Your task to perform on an android device: open app "DoorDash - Food Delivery" (install if not already installed) and enter user name: "Richard@outlook.com" and password: "informally" Image 0: 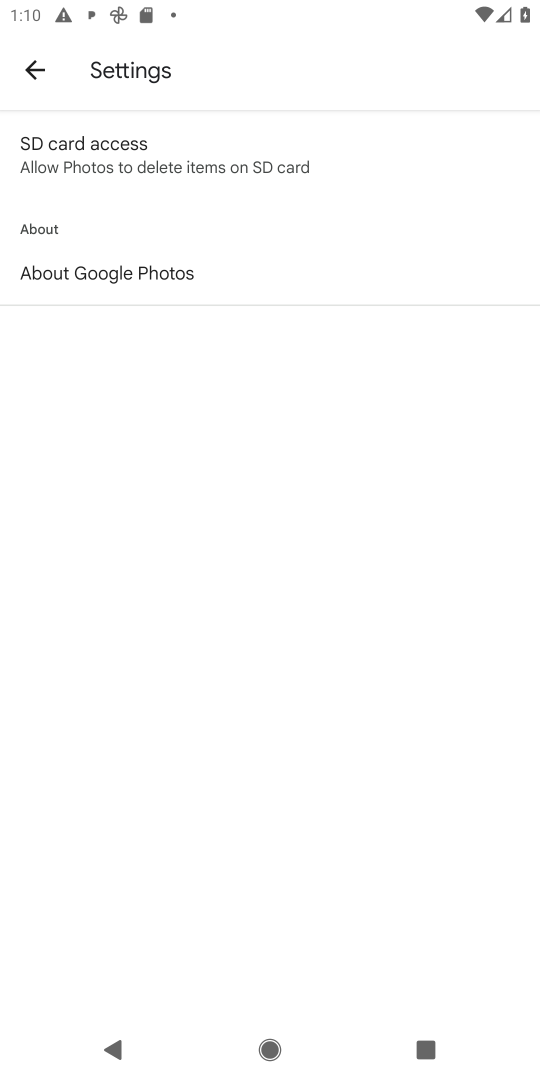
Step 0: press home button
Your task to perform on an android device: open app "DoorDash - Food Delivery" (install if not already installed) and enter user name: "Richard@outlook.com" and password: "informally" Image 1: 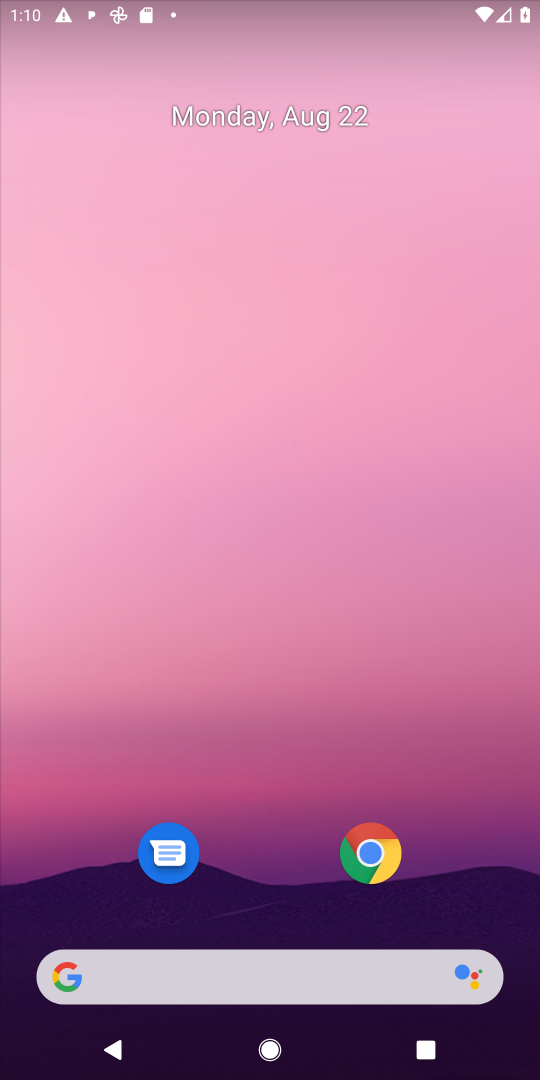
Step 1: drag from (254, 881) to (288, 39)
Your task to perform on an android device: open app "DoorDash - Food Delivery" (install if not already installed) and enter user name: "Richard@outlook.com" and password: "informally" Image 2: 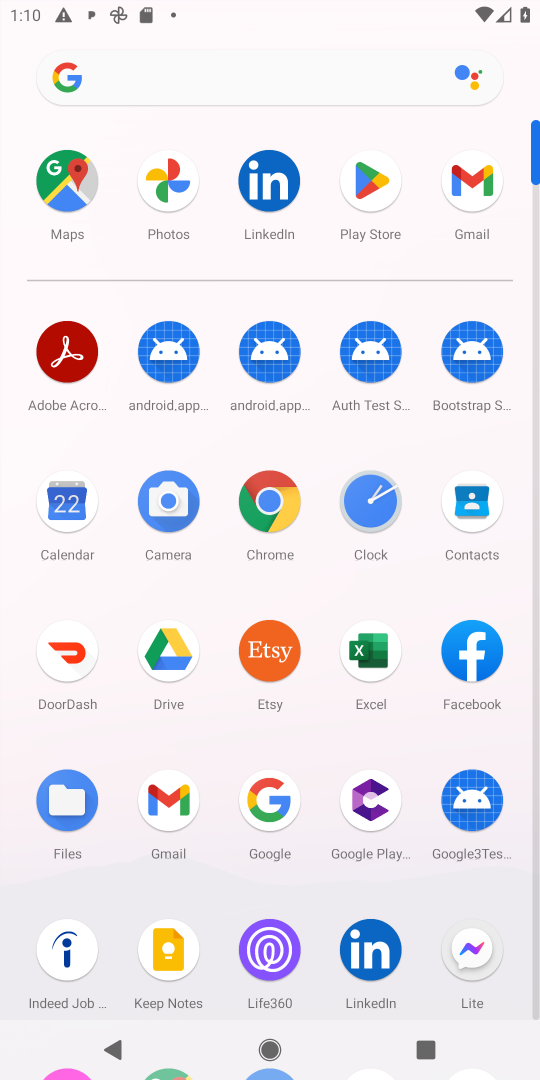
Step 2: click (375, 168)
Your task to perform on an android device: open app "DoorDash - Food Delivery" (install if not already installed) and enter user name: "Richard@outlook.com" and password: "informally" Image 3: 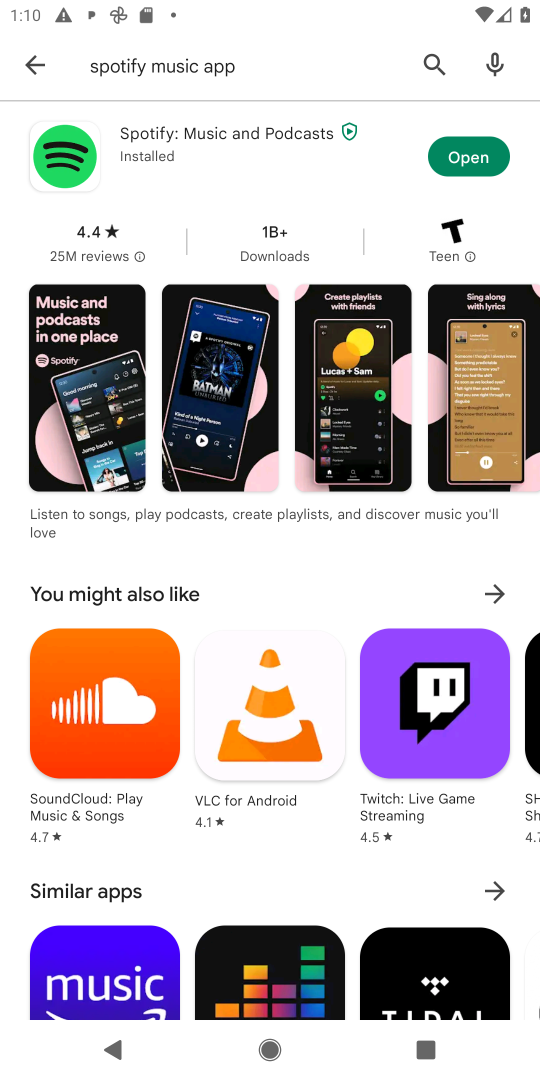
Step 3: click (20, 67)
Your task to perform on an android device: open app "DoorDash - Food Delivery" (install if not already installed) and enter user name: "Richard@outlook.com" and password: "informally" Image 4: 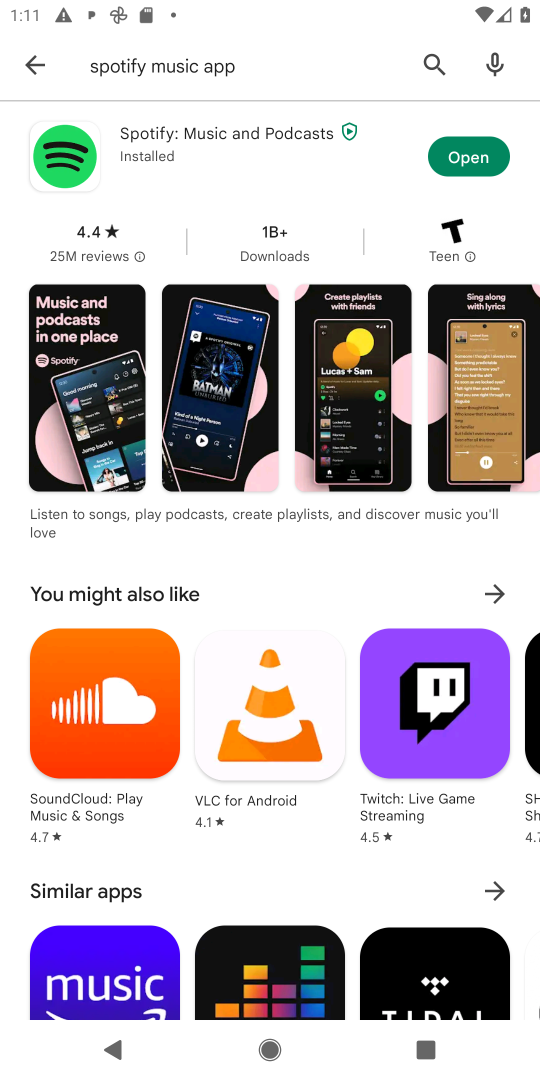
Step 4: click (20, 69)
Your task to perform on an android device: open app "DoorDash - Food Delivery" (install if not already installed) and enter user name: "Richard@outlook.com" and password: "informally" Image 5: 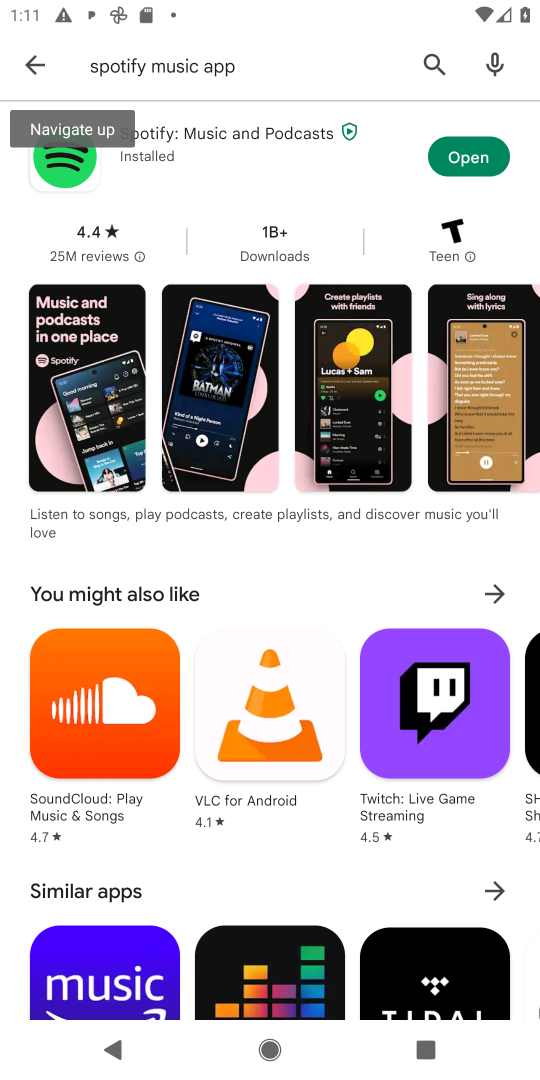
Step 5: click (20, 69)
Your task to perform on an android device: open app "DoorDash - Food Delivery" (install if not already installed) and enter user name: "Richard@outlook.com" and password: "informally" Image 6: 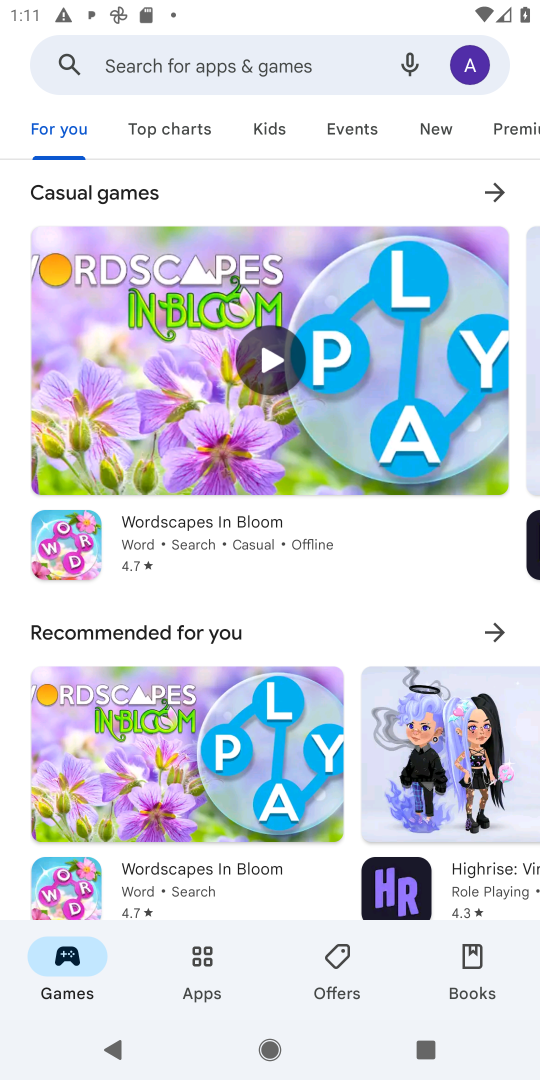
Step 6: click (234, 45)
Your task to perform on an android device: open app "DoorDash - Food Delivery" (install if not already installed) and enter user name: "Richard@outlook.com" and password: "informally" Image 7: 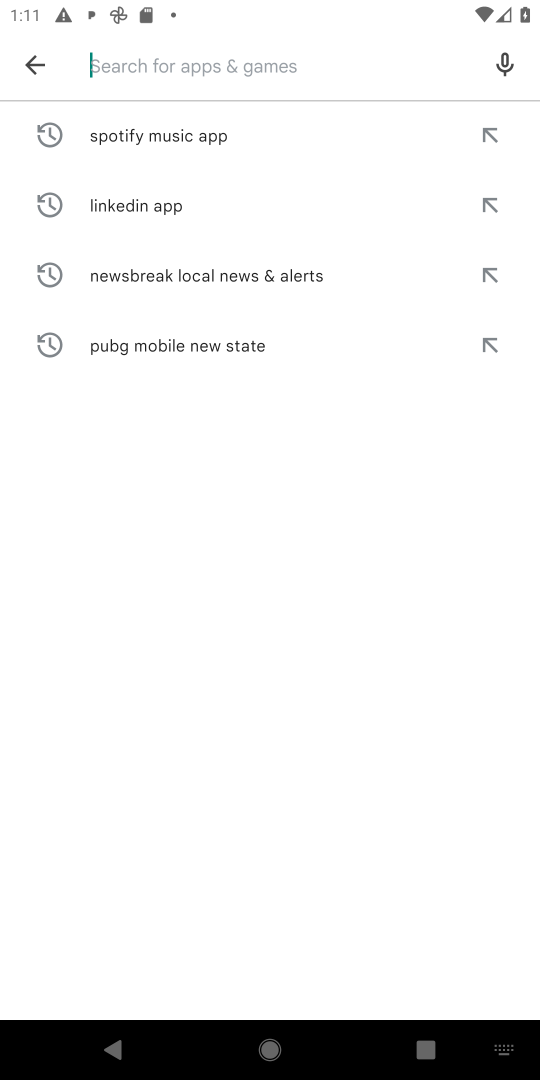
Step 7: type "DoorDash - Food Delivery "
Your task to perform on an android device: open app "DoorDash - Food Delivery" (install if not already installed) and enter user name: "Richard@outlook.com" and password: "informally" Image 8: 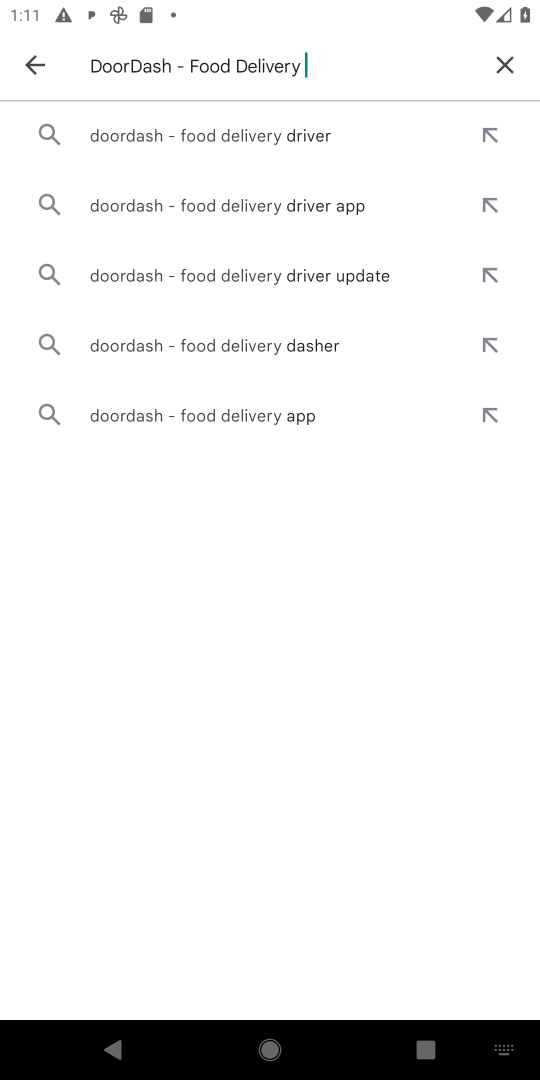
Step 8: click (222, 131)
Your task to perform on an android device: open app "DoorDash - Food Delivery" (install if not already installed) and enter user name: "Richard@outlook.com" and password: "informally" Image 9: 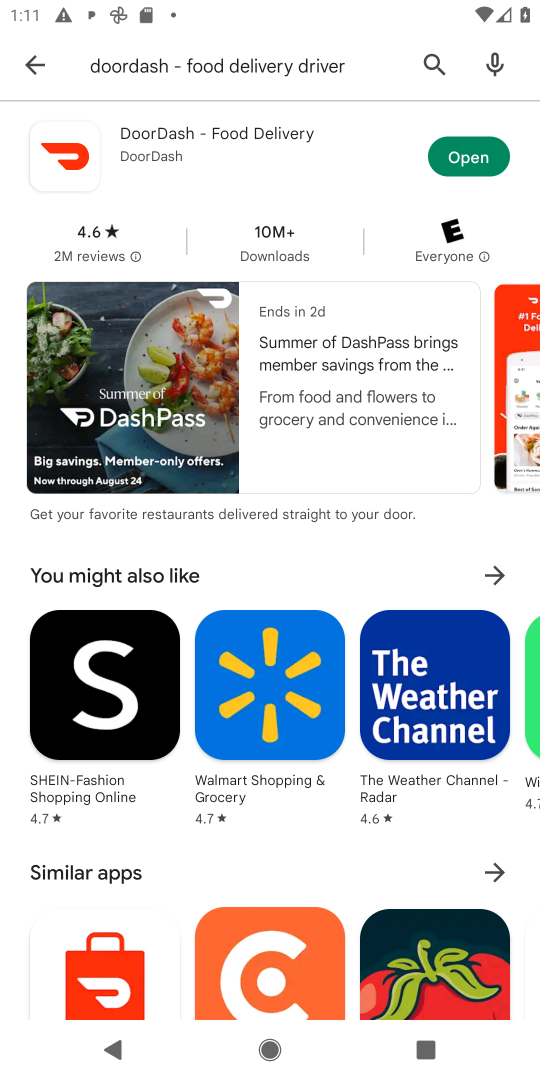
Step 9: click (459, 158)
Your task to perform on an android device: open app "DoorDash - Food Delivery" (install if not already installed) and enter user name: "Richard@outlook.com" and password: "informally" Image 10: 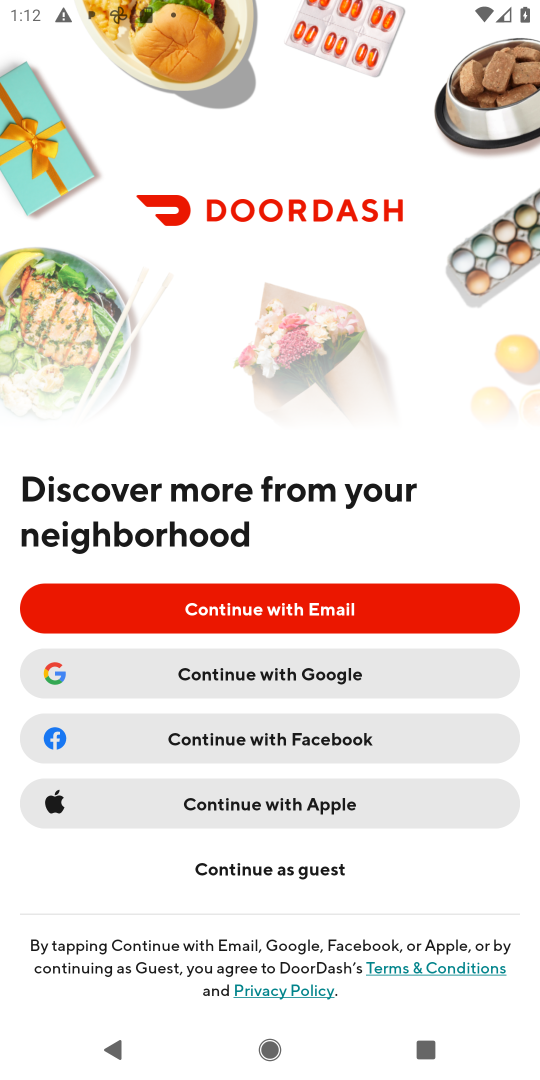
Step 10: click (358, 602)
Your task to perform on an android device: open app "DoorDash - Food Delivery" (install if not already installed) and enter user name: "Richard@outlook.com" and password: "informally" Image 11: 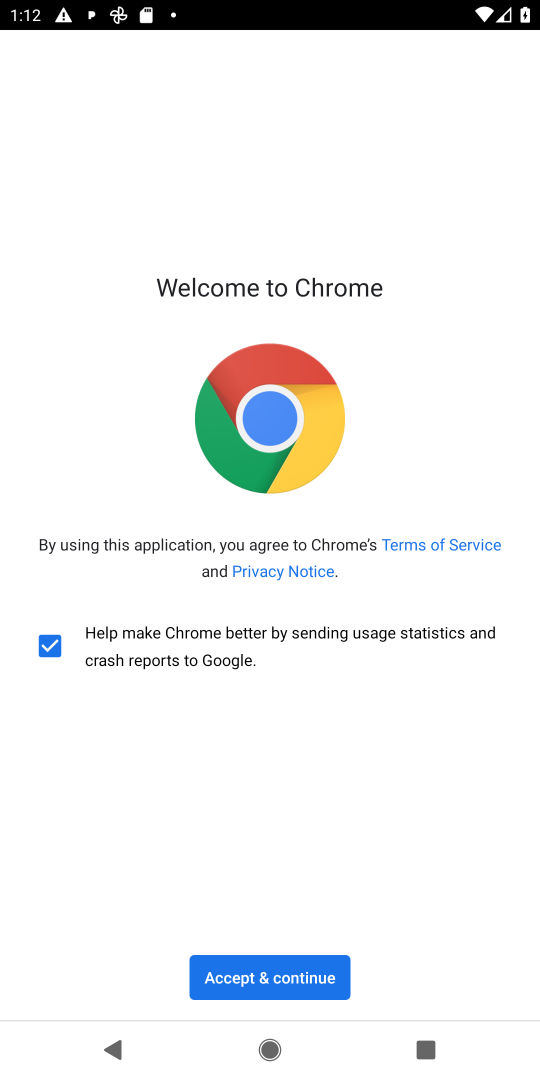
Step 11: click (273, 981)
Your task to perform on an android device: open app "DoorDash - Food Delivery" (install if not already installed) and enter user name: "Richard@outlook.com" and password: "informally" Image 12: 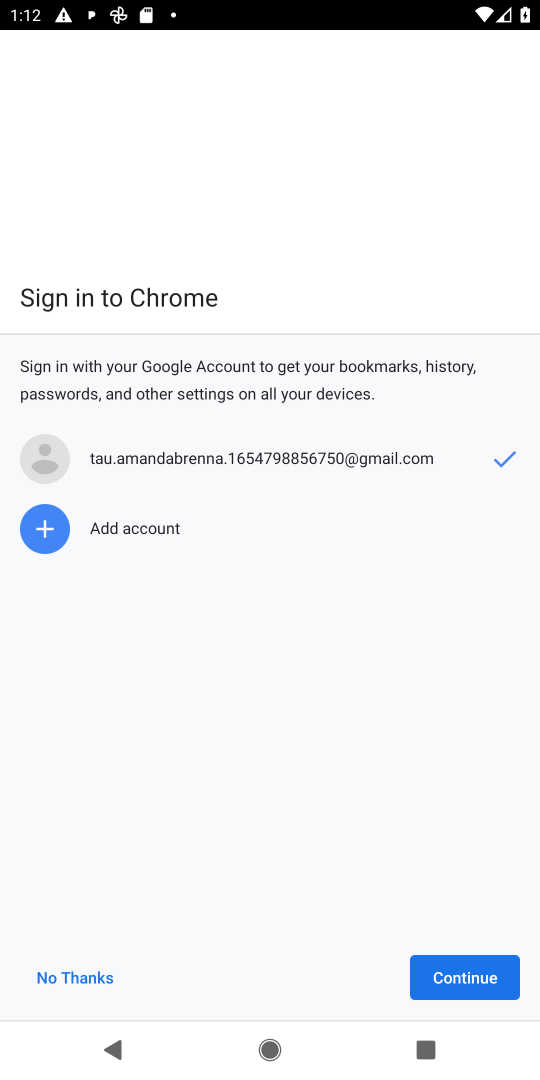
Step 12: click (424, 979)
Your task to perform on an android device: open app "DoorDash - Food Delivery" (install if not already installed) and enter user name: "Richard@outlook.com" and password: "informally" Image 13: 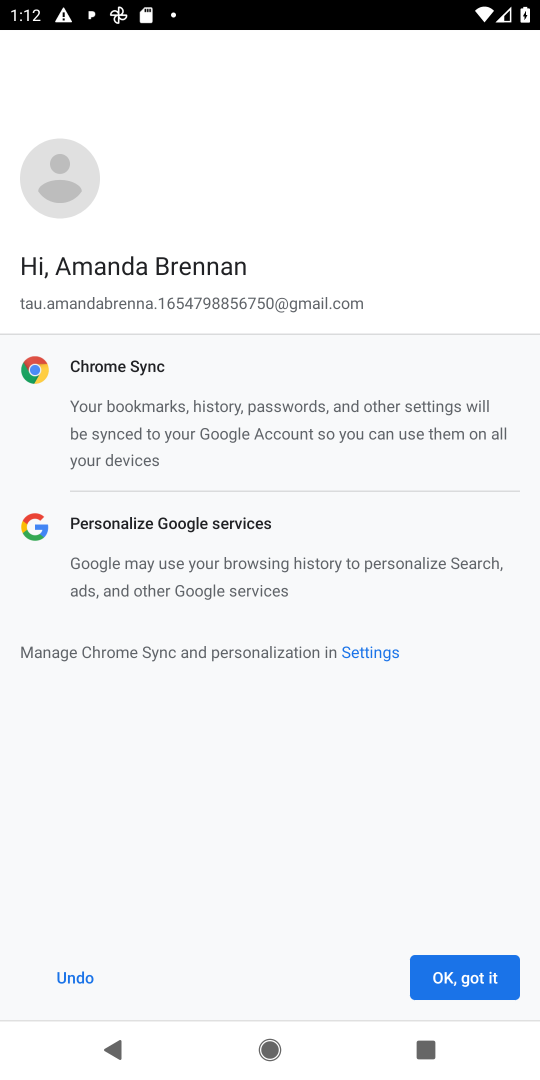
Step 13: click (424, 979)
Your task to perform on an android device: open app "DoorDash - Food Delivery" (install if not already installed) and enter user name: "Richard@outlook.com" and password: "informally" Image 14: 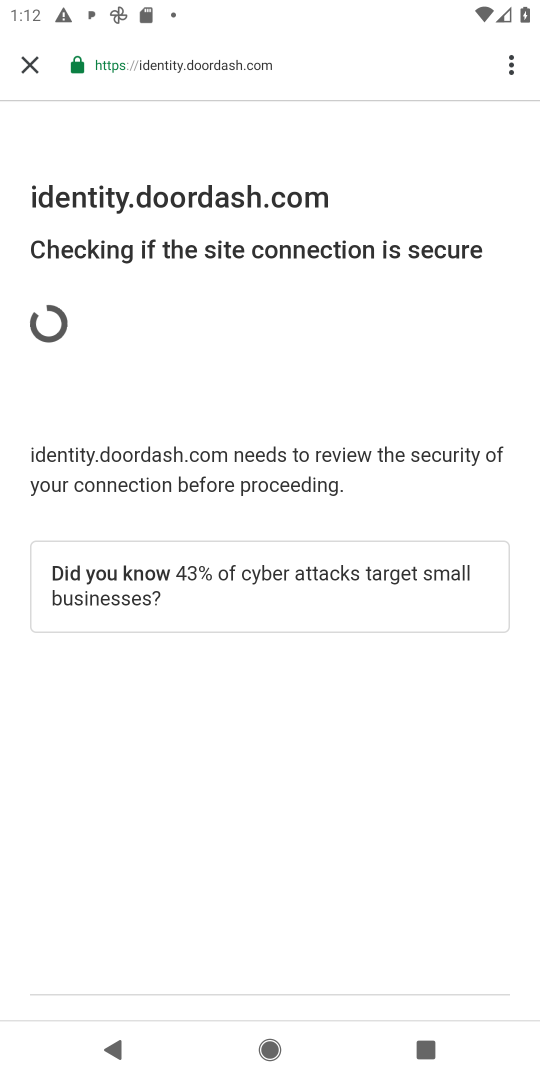
Step 14: click (248, 557)
Your task to perform on an android device: open app "DoorDash - Food Delivery" (install if not already installed) and enter user name: "Richard@outlook.com" and password: "informally" Image 15: 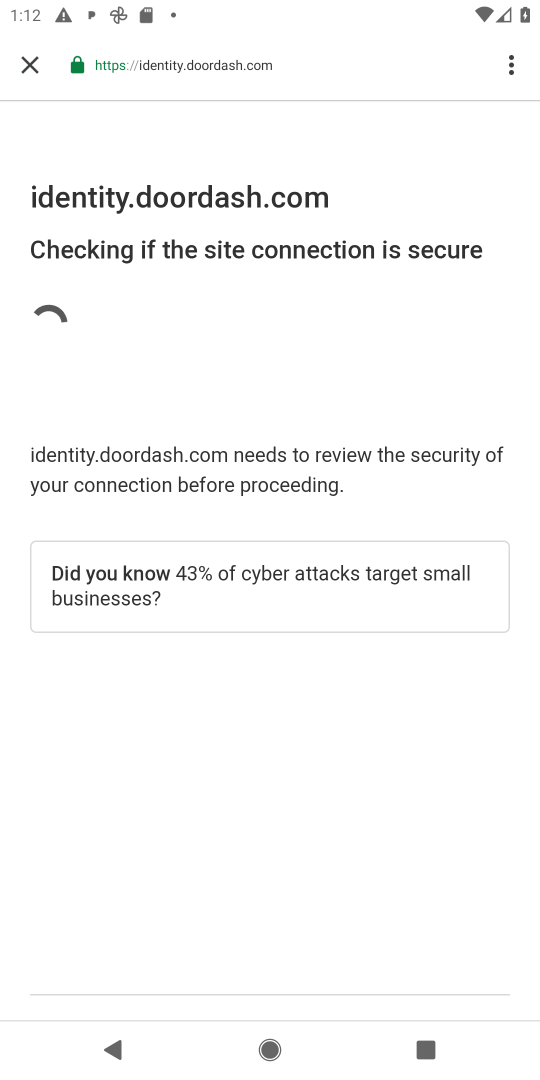
Step 15: task complete